Your task to perform on an android device: uninstall "Google News" Image 0: 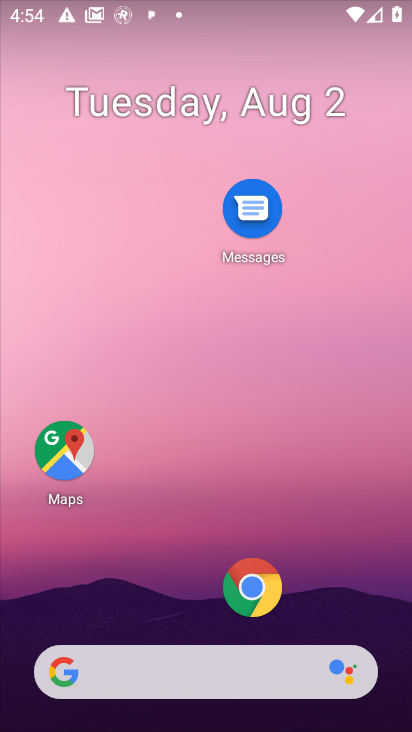
Step 0: drag from (194, 619) to (178, 182)
Your task to perform on an android device: uninstall "Google News" Image 1: 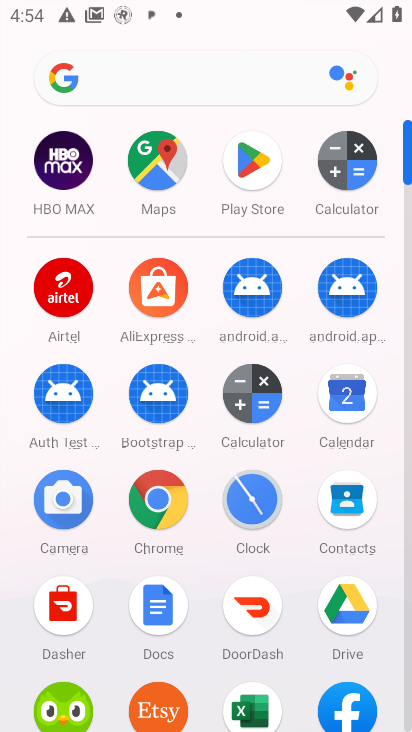
Step 1: click (258, 188)
Your task to perform on an android device: uninstall "Google News" Image 2: 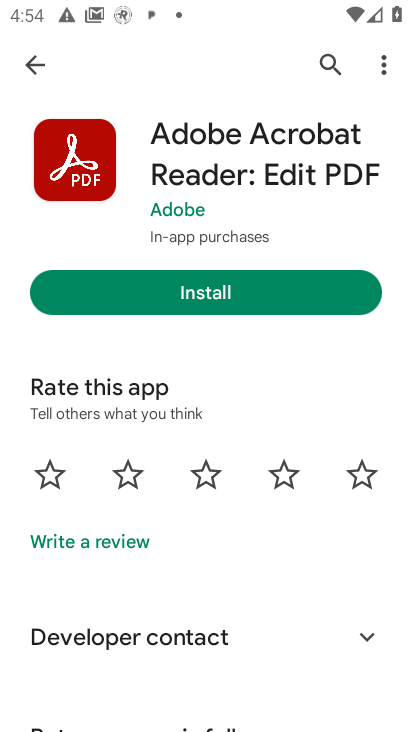
Step 2: click (338, 59)
Your task to perform on an android device: uninstall "Google News" Image 3: 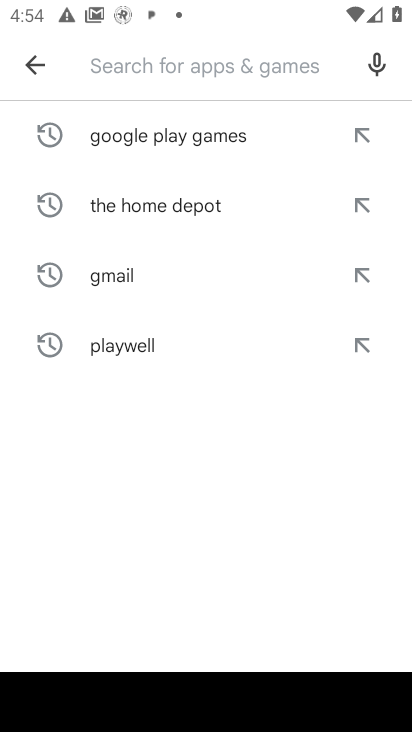
Step 3: type "Google News"
Your task to perform on an android device: uninstall "Google News" Image 4: 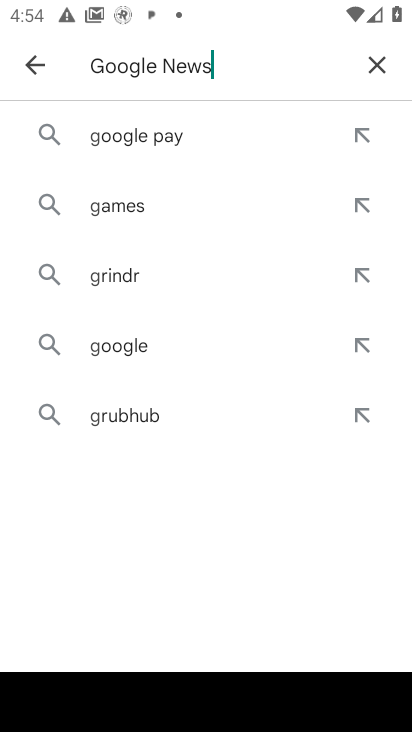
Step 4: type ""
Your task to perform on an android device: uninstall "Google News" Image 5: 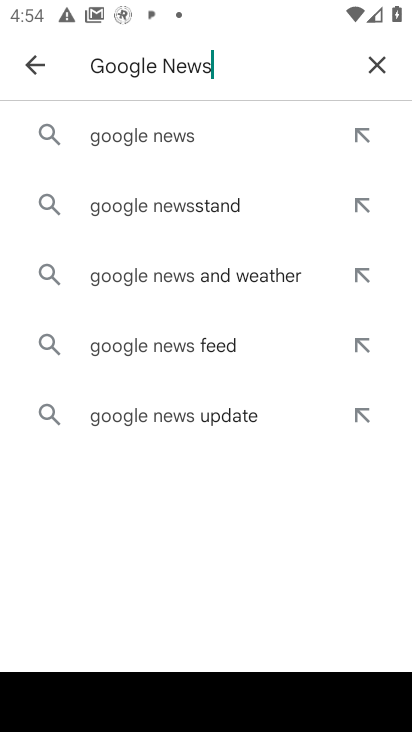
Step 5: click (153, 138)
Your task to perform on an android device: uninstall "Google News" Image 6: 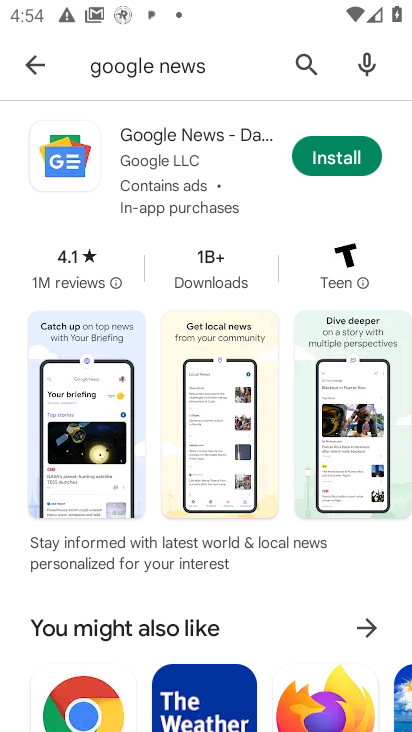
Step 6: task complete